Your task to perform on an android device: Go to sound settings Image 0: 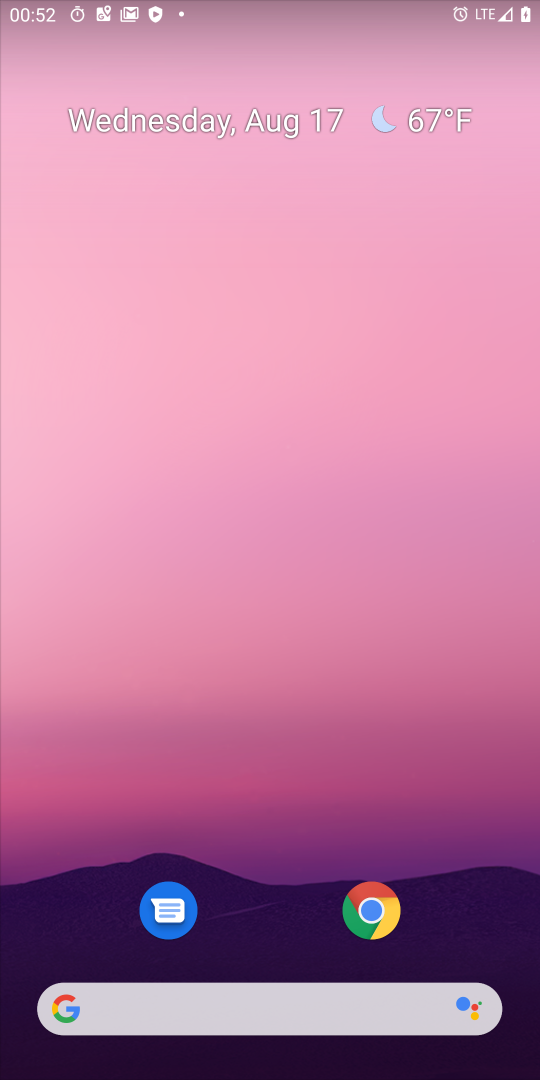
Step 0: drag from (252, 931) to (386, 3)
Your task to perform on an android device: Go to sound settings Image 1: 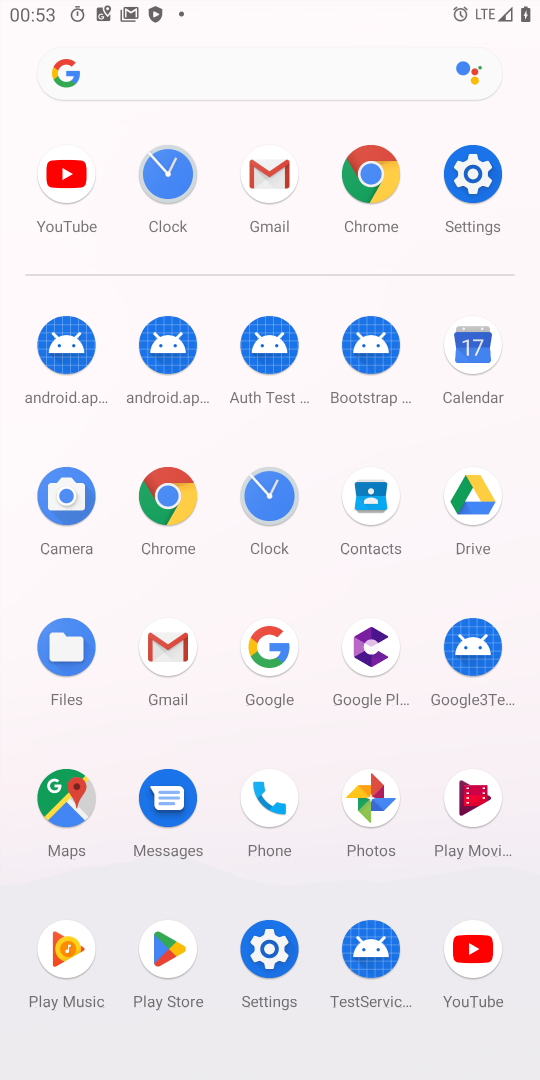
Step 1: click (264, 940)
Your task to perform on an android device: Go to sound settings Image 2: 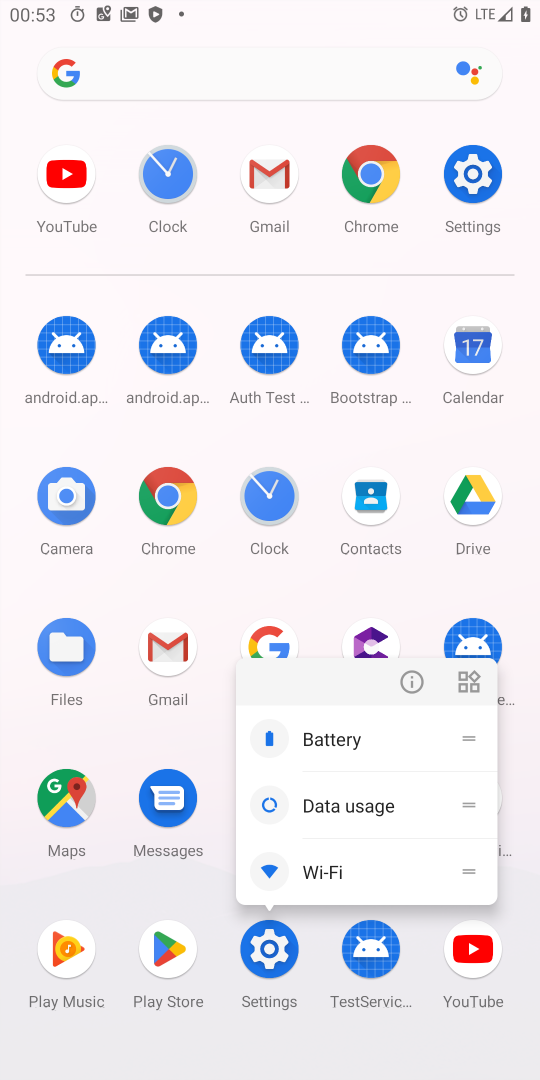
Step 2: click (270, 945)
Your task to perform on an android device: Go to sound settings Image 3: 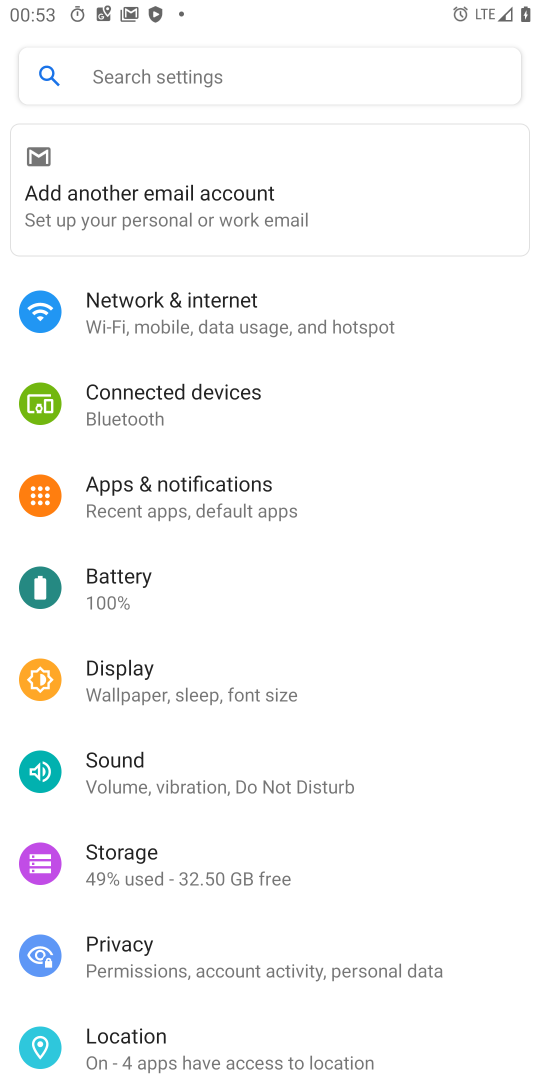
Step 3: click (169, 766)
Your task to perform on an android device: Go to sound settings Image 4: 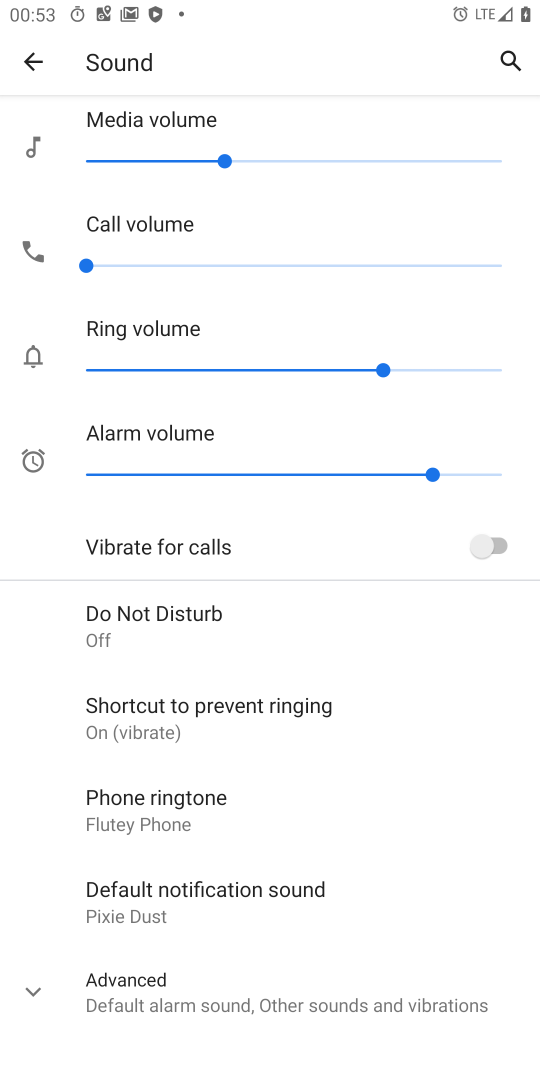
Step 4: task complete